Your task to perform on an android device: change text size in settings app Image 0: 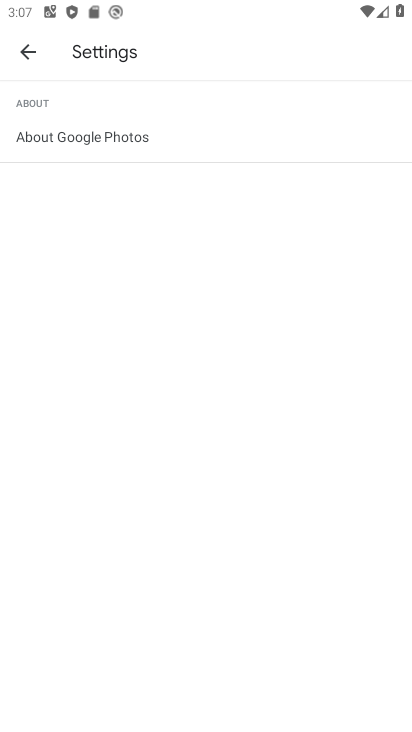
Step 0: press home button
Your task to perform on an android device: change text size in settings app Image 1: 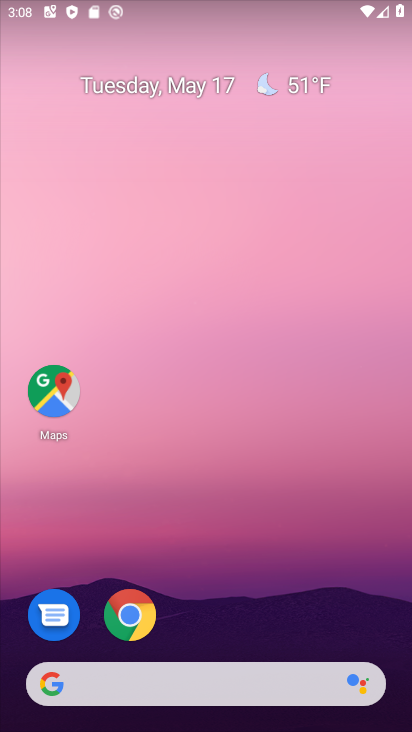
Step 1: drag from (224, 637) to (222, 136)
Your task to perform on an android device: change text size in settings app Image 2: 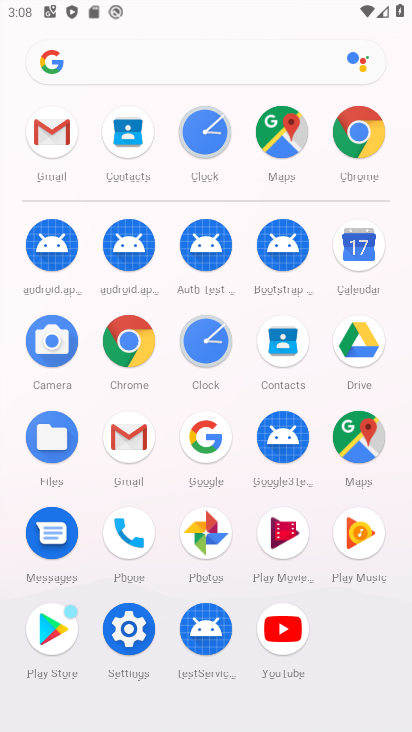
Step 2: click (127, 621)
Your task to perform on an android device: change text size in settings app Image 3: 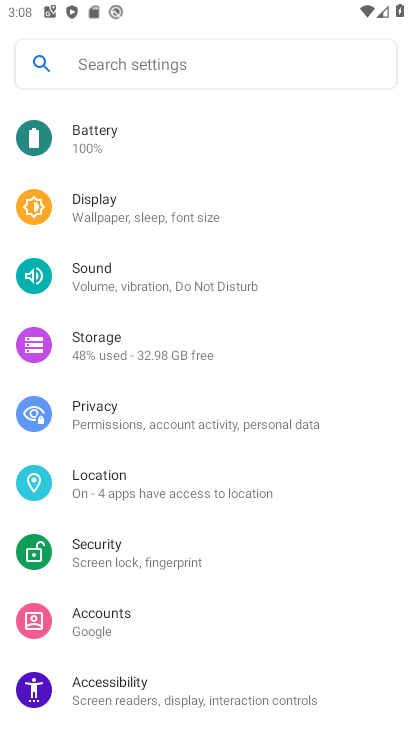
Step 3: click (99, 205)
Your task to perform on an android device: change text size in settings app Image 4: 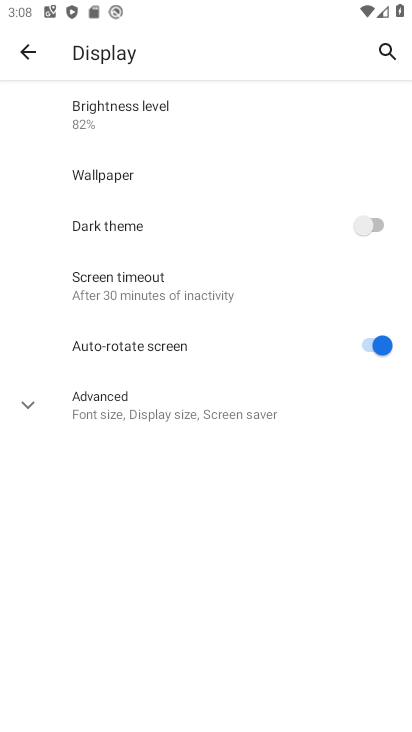
Step 4: click (43, 397)
Your task to perform on an android device: change text size in settings app Image 5: 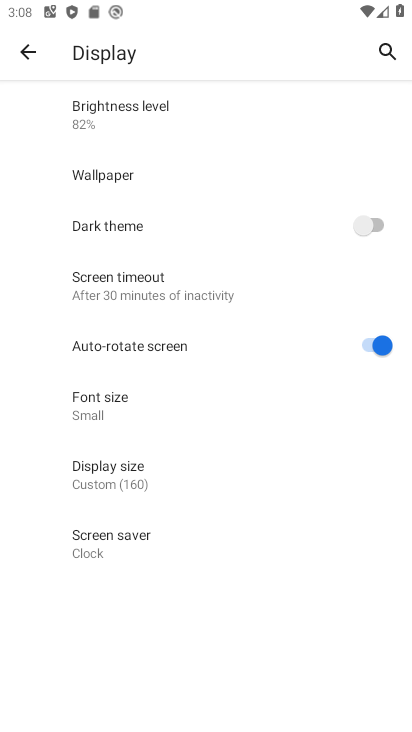
Step 5: click (119, 405)
Your task to perform on an android device: change text size in settings app Image 6: 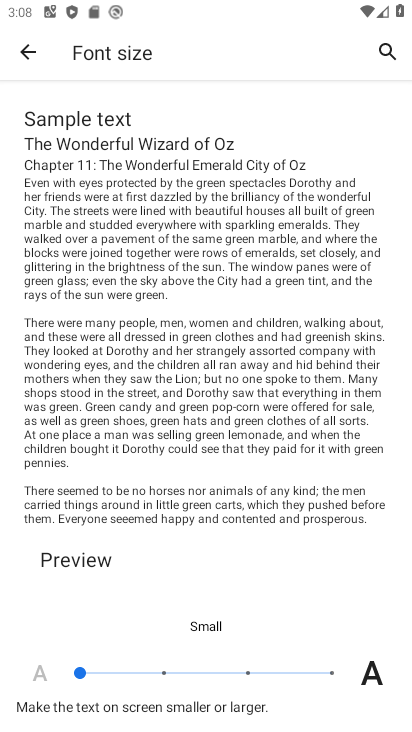
Step 6: task complete